Your task to perform on an android device: toggle translation in the chrome app Image 0: 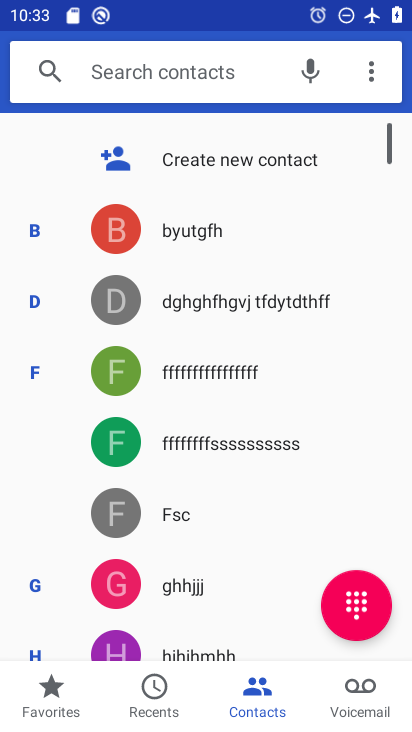
Step 0: press home button
Your task to perform on an android device: toggle translation in the chrome app Image 1: 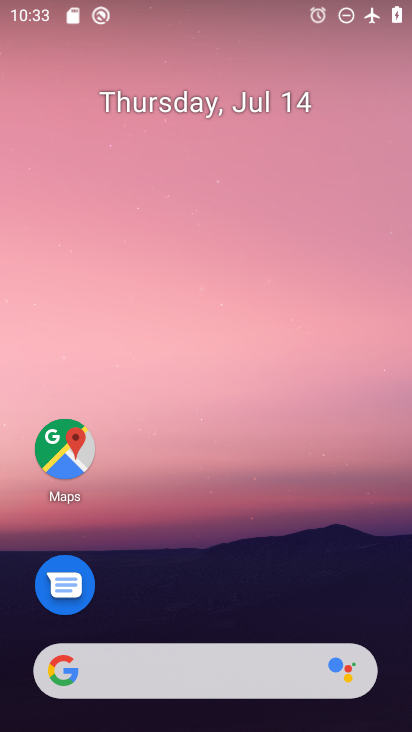
Step 1: drag from (233, 613) to (120, 146)
Your task to perform on an android device: toggle translation in the chrome app Image 2: 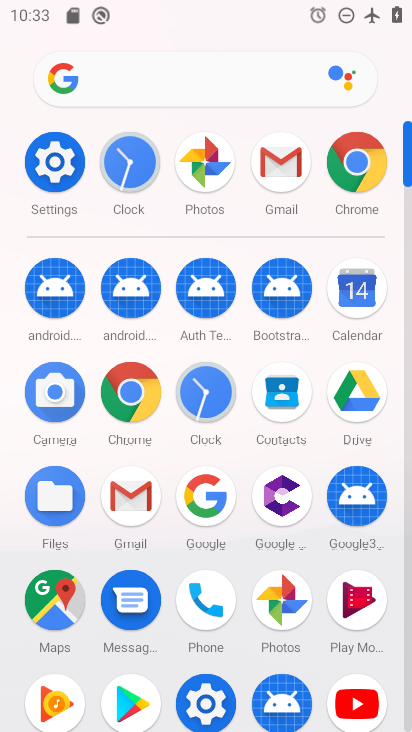
Step 2: click (118, 391)
Your task to perform on an android device: toggle translation in the chrome app Image 3: 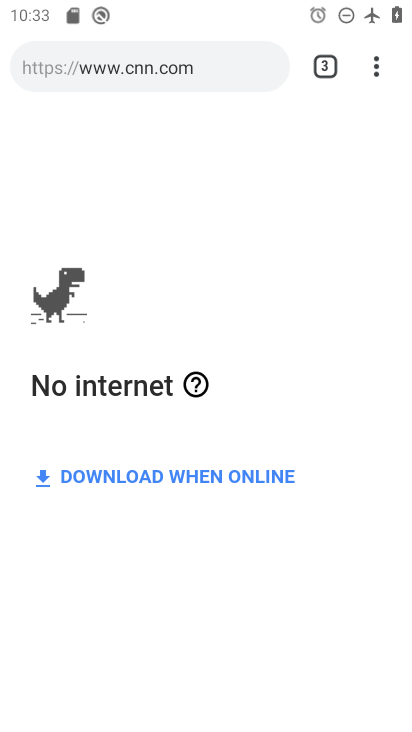
Step 3: click (375, 79)
Your task to perform on an android device: toggle translation in the chrome app Image 4: 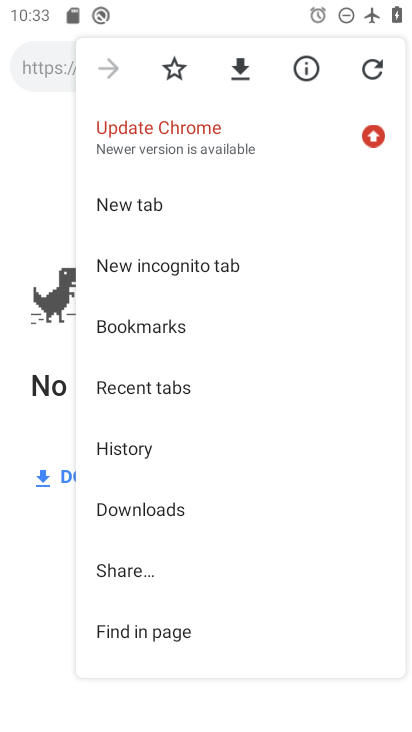
Step 4: drag from (119, 595) to (76, 351)
Your task to perform on an android device: toggle translation in the chrome app Image 5: 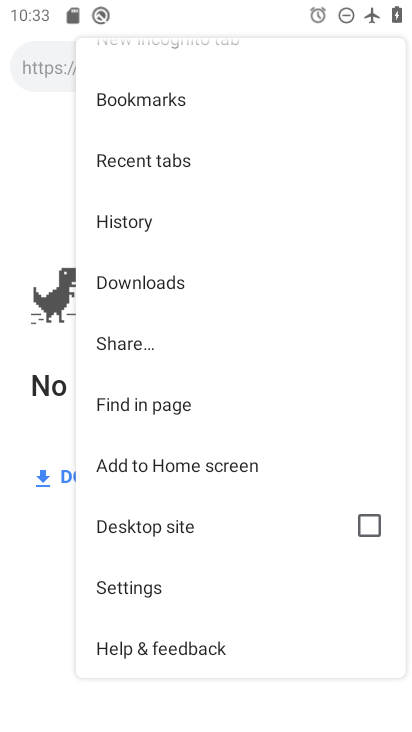
Step 5: click (126, 581)
Your task to perform on an android device: toggle translation in the chrome app Image 6: 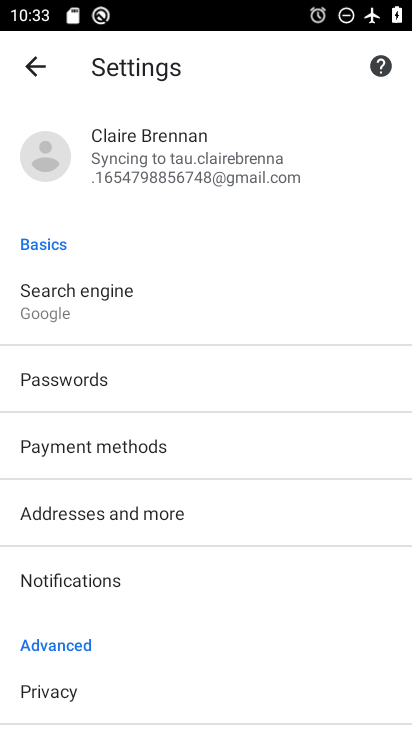
Step 6: drag from (153, 594) to (39, 282)
Your task to perform on an android device: toggle translation in the chrome app Image 7: 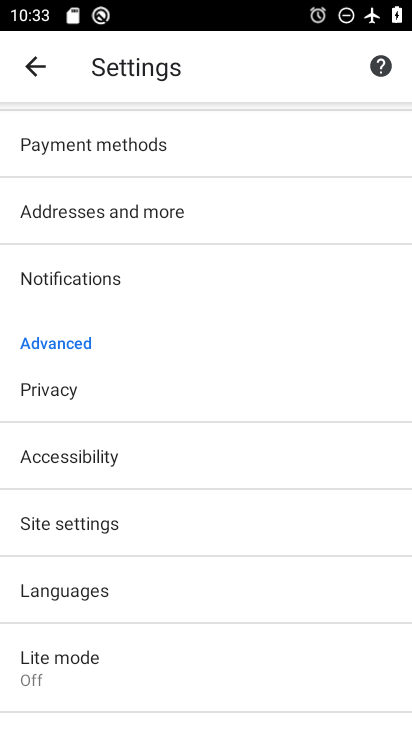
Step 7: click (60, 607)
Your task to perform on an android device: toggle translation in the chrome app Image 8: 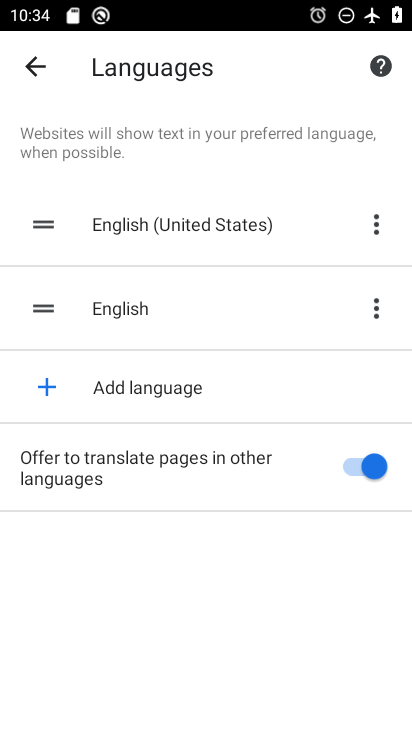
Step 8: click (355, 463)
Your task to perform on an android device: toggle translation in the chrome app Image 9: 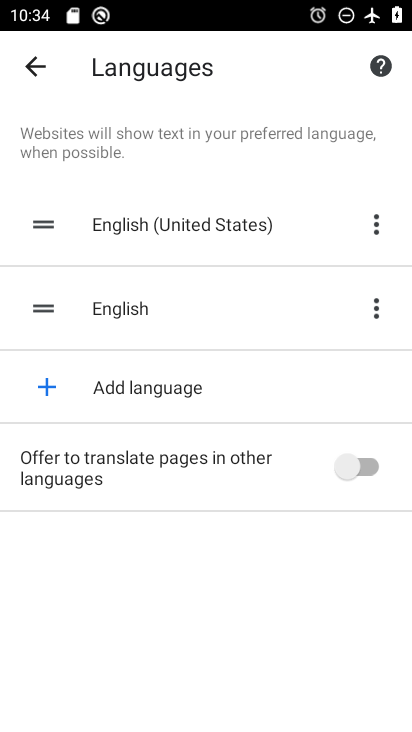
Step 9: task complete